Your task to perform on an android device: What's the weather going to be tomorrow? Image 0: 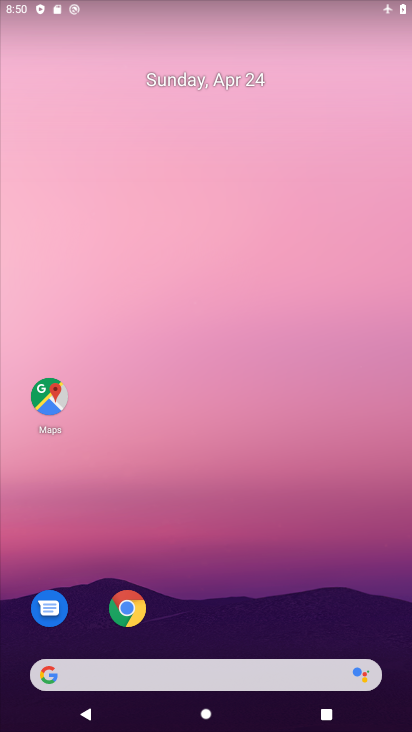
Step 0: drag from (224, 631) to (224, 135)
Your task to perform on an android device: What's the weather going to be tomorrow? Image 1: 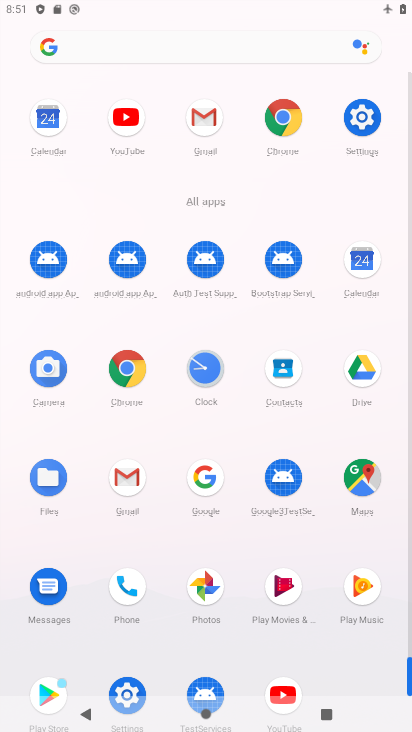
Step 1: click (196, 482)
Your task to perform on an android device: What's the weather going to be tomorrow? Image 2: 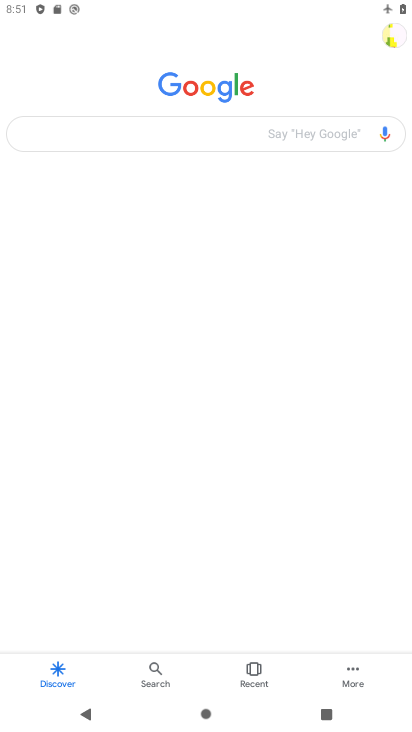
Step 2: task complete